Your task to perform on an android device: Open accessibility settings Image 0: 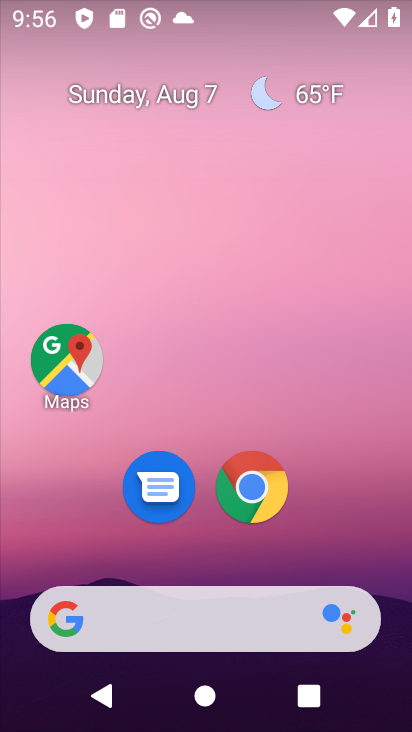
Step 0: drag from (379, 648) to (282, 73)
Your task to perform on an android device: Open accessibility settings Image 1: 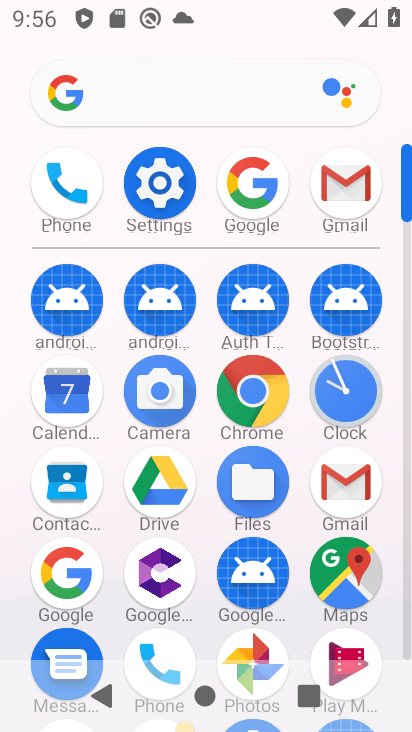
Step 1: click (153, 186)
Your task to perform on an android device: Open accessibility settings Image 2: 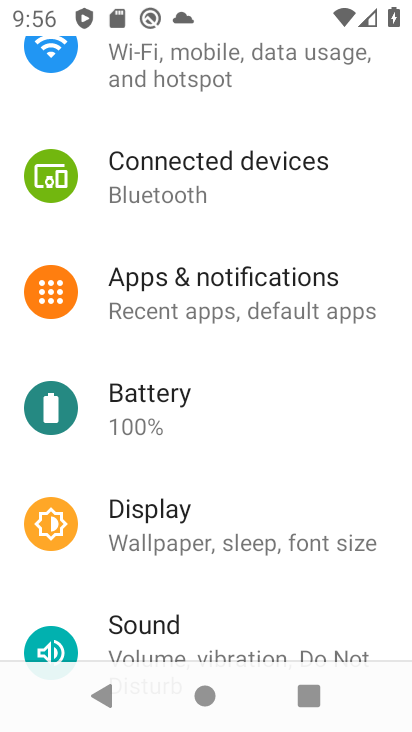
Step 2: drag from (319, 606) to (290, 241)
Your task to perform on an android device: Open accessibility settings Image 3: 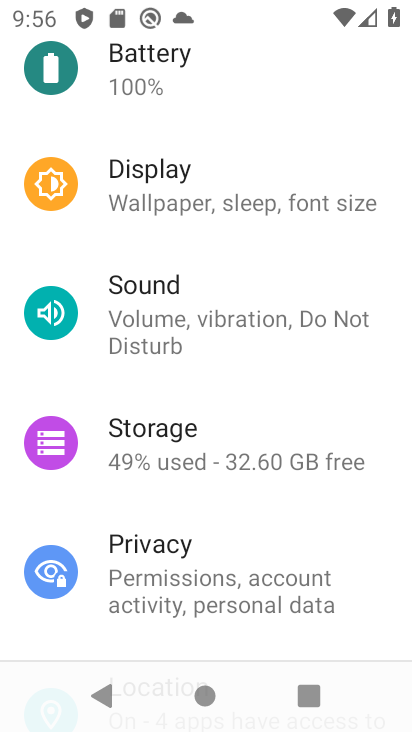
Step 3: drag from (289, 596) to (206, 179)
Your task to perform on an android device: Open accessibility settings Image 4: 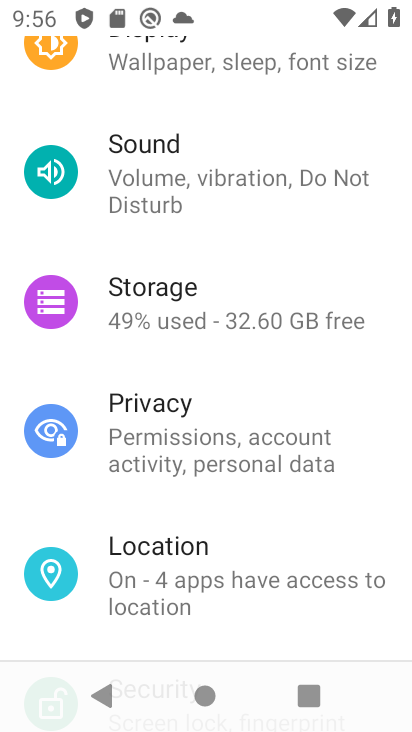
Step 4: drag from (242, 639) to (228, 250)
Your task to perform on an android device: Open accessibility settings Image 5: 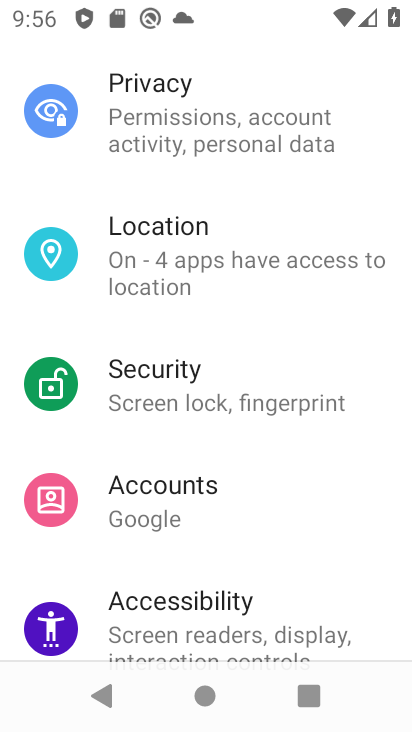
Step 5: click (175, 621)
Your task to perform on an android device: Open accessibility settings Image 6: 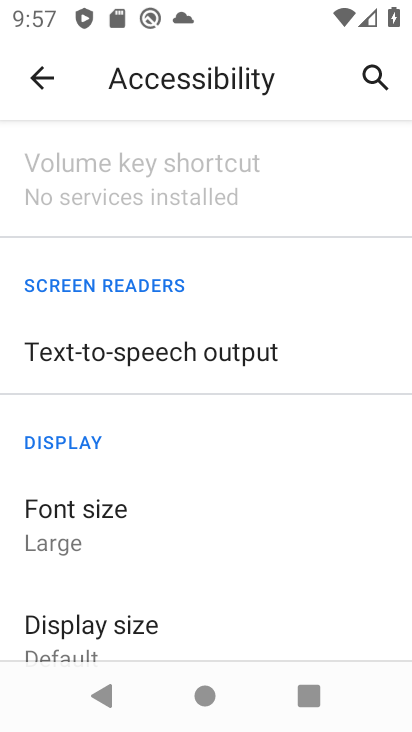
Step 6: task complete